Your task to perform on an android device: find snoozed emails in the gmail app Image 0: 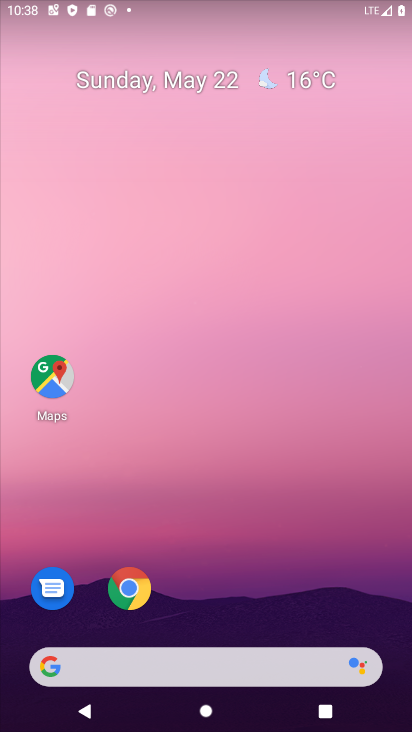
Step 0: drag from (208, 593) to (203, 231)
Your task to perform on an android device: find snoozed emails in the gmail app Image 1: 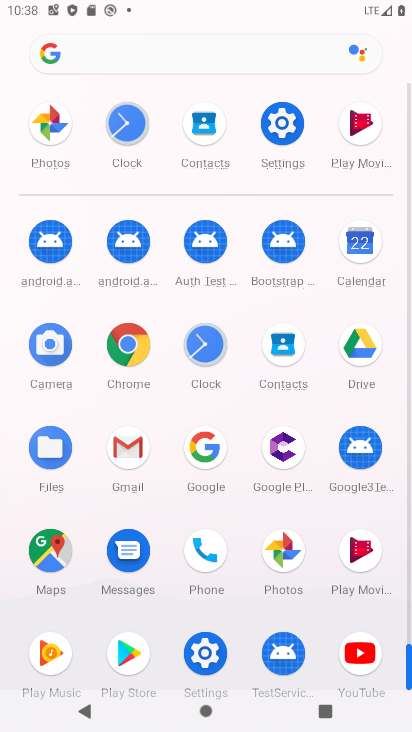
Step 1: click (126, 439)
Your task to perform on an android device: find snoozed emails in the gmail app Image 2: 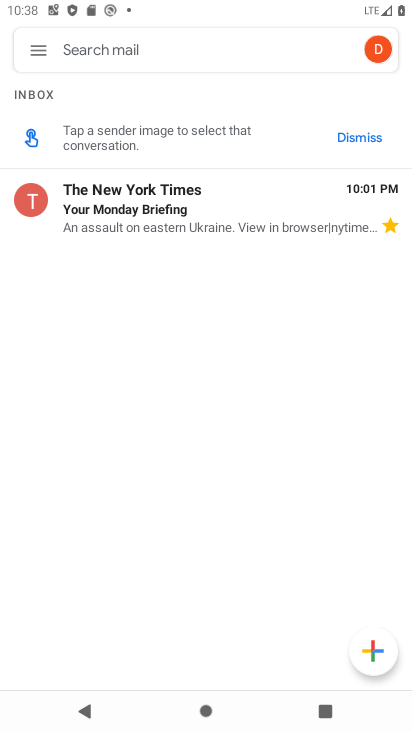
Step 2: click (37, 53)
Your task to perform on an android device: find snoozed emails in the gmail app Image 3: 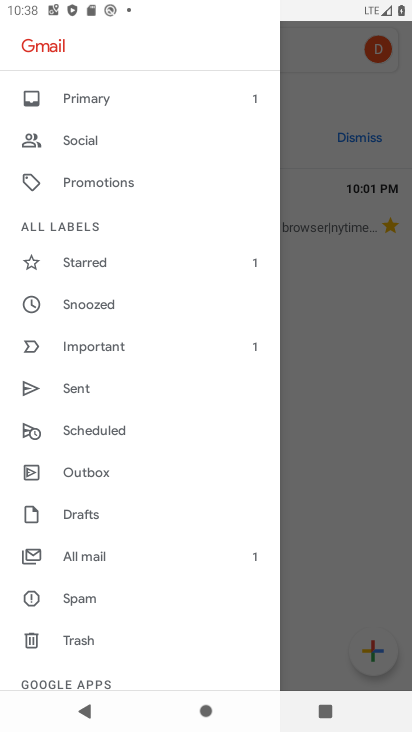
Step 3: click (100, 306)
Your task to perform on an android device: find snoozed emails in the gmail app Image 4: 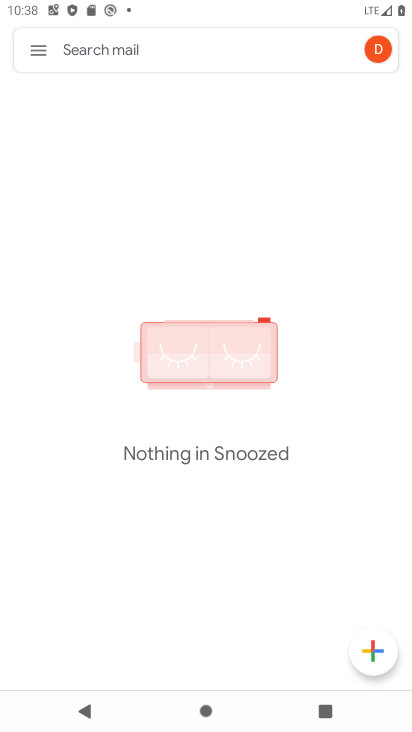
Step 4: task complete